Your task to perform on an android device: Go to Yahoo.com Image 0: 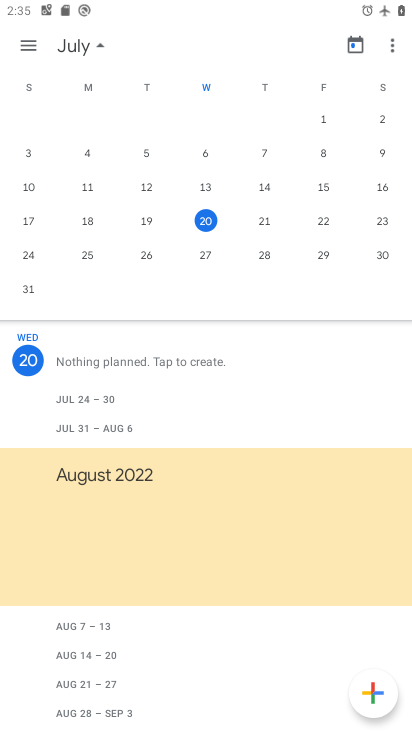
Step 0: press home button
Your task to perform on an android device: Go to Yahoo.com Image 1: 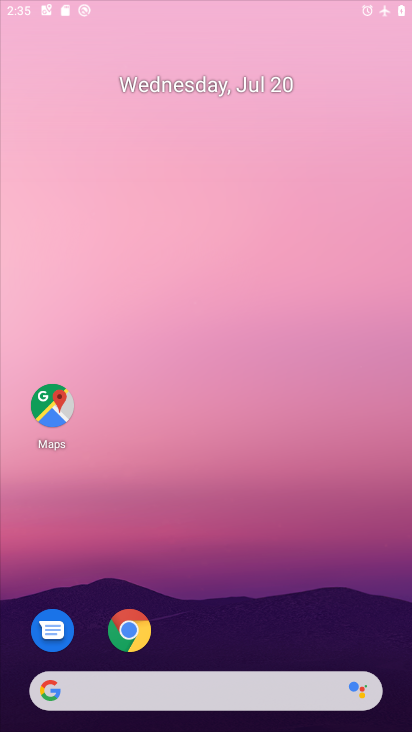
Step 1: drag from (178, 650) to (219, 17)
Your task to perform on an android device: Go to Yahoo.com Image 2: 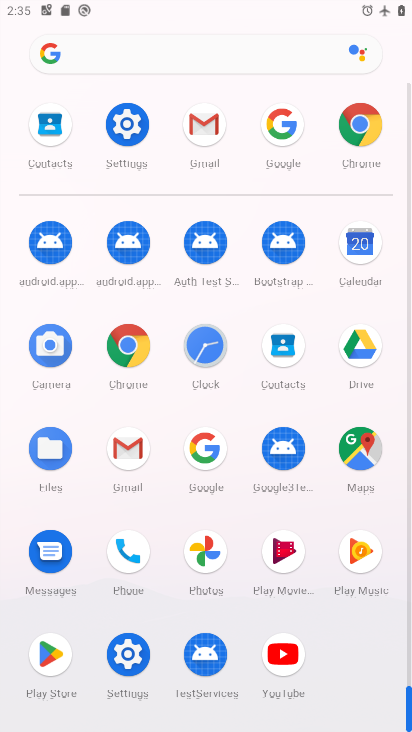
Step 2: click (358, 168)
Your task to perform on an android device: Go to Yahoo.com Image 3: 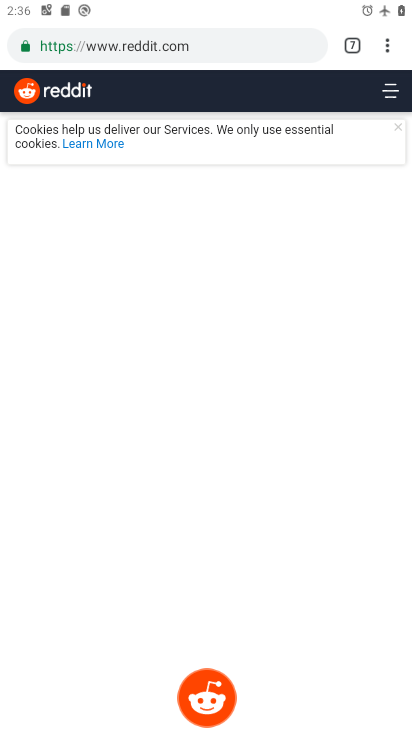
Step 3: click (205, 52)
Your task to perform on an android device: Go to Yahoo.com Image 4: 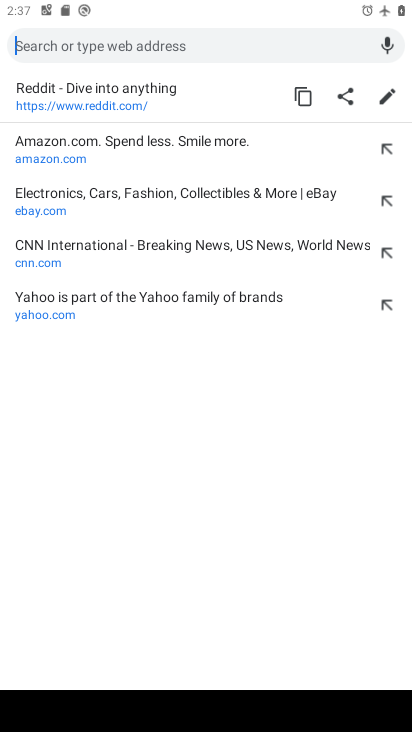
Step 4: click (70, 315)
Your task to perform on an android device: Go to Yahoo.com Image 5: 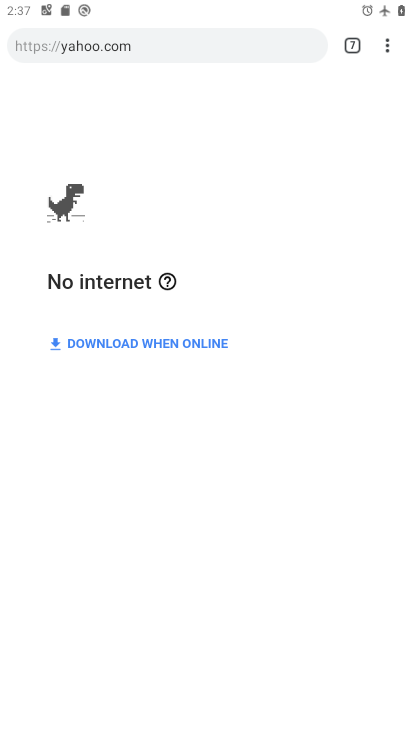
Step 5: task complete